Your task to perform on an android device: turn on translation in the chrome app Image 0: 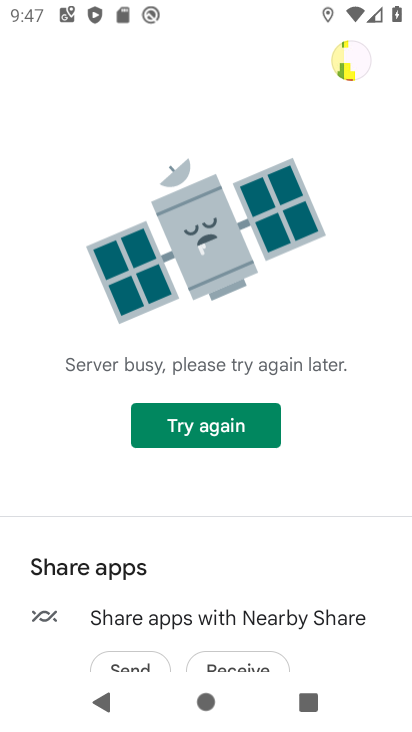
Step 0: press home button
Your task to perform on an android device: turn on translation in the chrome app Image 1: 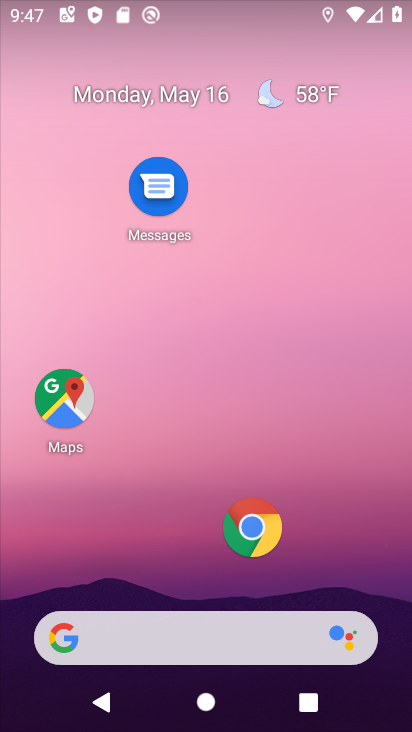
Step 1: click (257, 527)
Your task to perform on an android device: turn on translation in the chrome app Image 2: 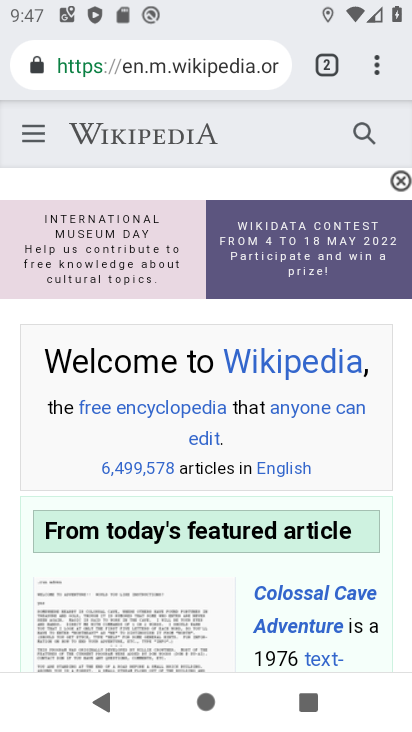
Step 2: click (369, 64)
Your task to perform on an android device: turn on translation in the chrome app Image 3: 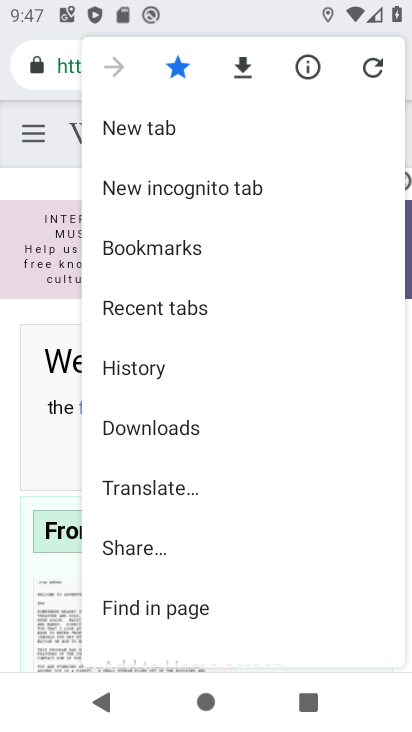
Step 3: drag from (247, 584) to (253, 101)
Your task to perform on an android device: turn on translation in the chrome app Image 4: 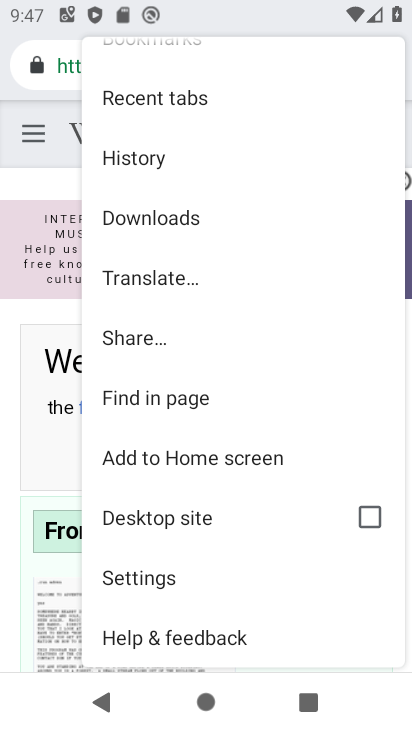
Step 4: click (156, 569)
Your task to perform on an android device: turn on translation in the chrome app Image 5: 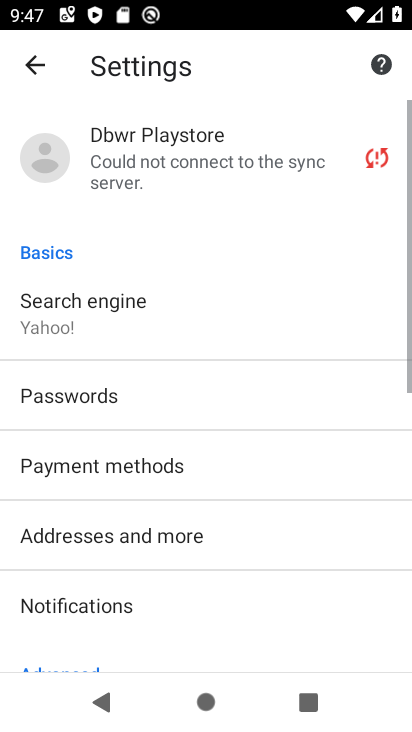
Step 5: drag from (236, 570) to (198, 139)
Your task to perform on an android device: turn on translation in the chrome app Image 6: 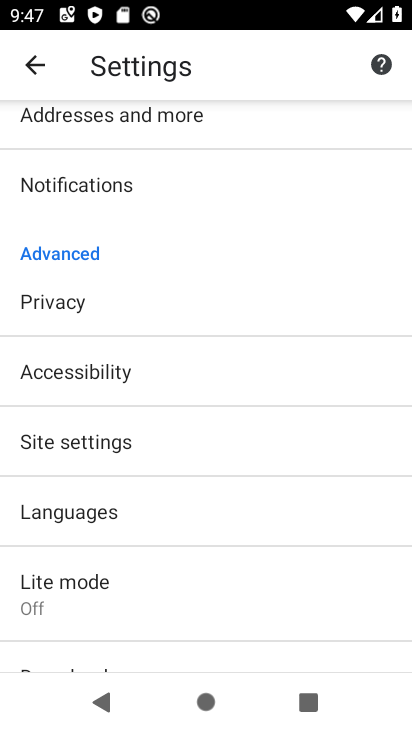
Step 6: click (103, 499)
Your task to perform on an android device: turn on translation in the chrome app Image 7: 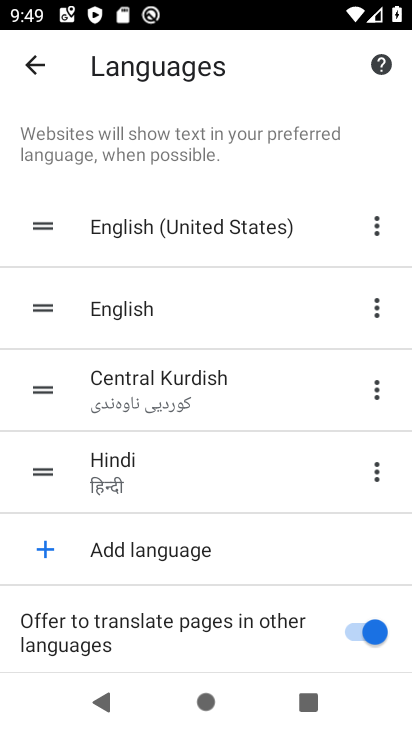
Step 7: task complete